Your task to perform on an android device: stop showing notifications on the lock screen Image 0: 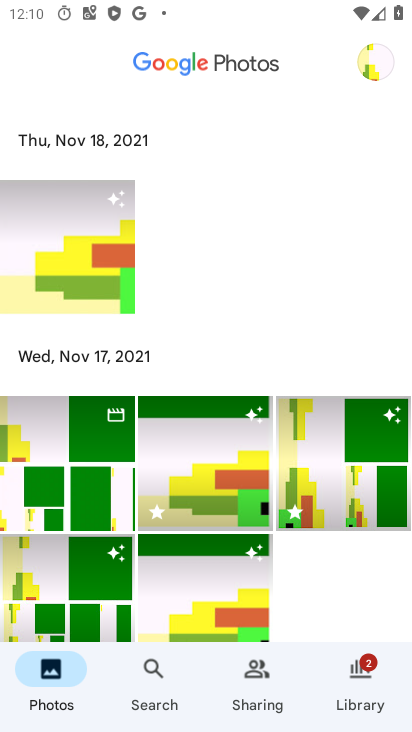
Step 0: press home button
Your task to perform on an android device: stop showing notifications on the lock screen Image 1: 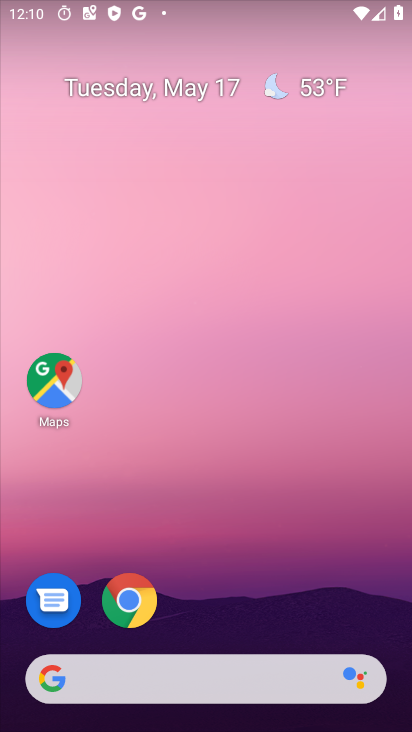
Step 1: drag from (265, 609) to (273, 0)
Your task to perform on an android device: stop showing notifications on the lock screen Image 2: 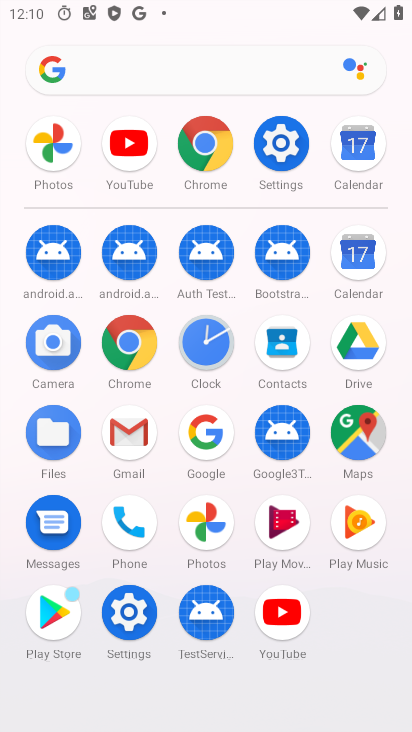
Step 2: click (131, 607)
Your task to perform on an android device: stop showing notifications on the lock screen Image 3: 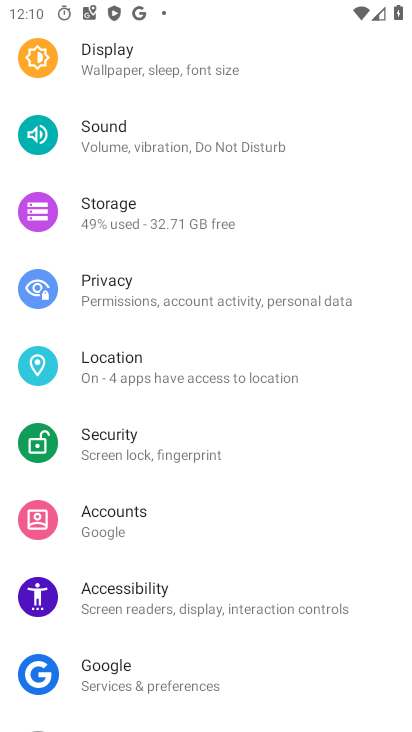
Step 3: drag from (142, 250) to (254, 721)
Your task to perform on an android device: stop showing notifications on the lock screen Image 4: 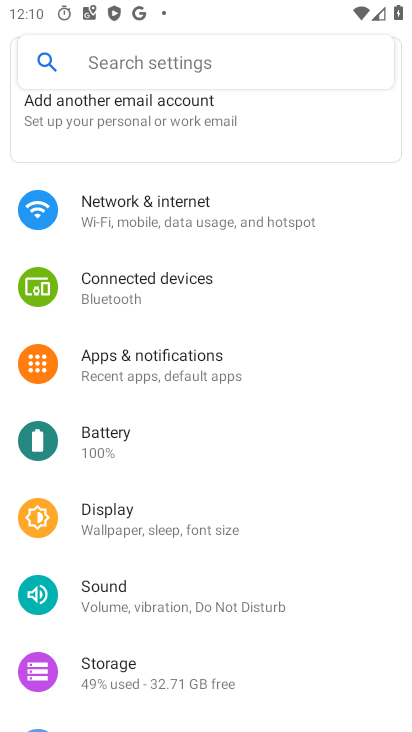
Step 4: click (218, 376)
Your task to perform on an android device: stop showing notifications on the lock screen Image 5: 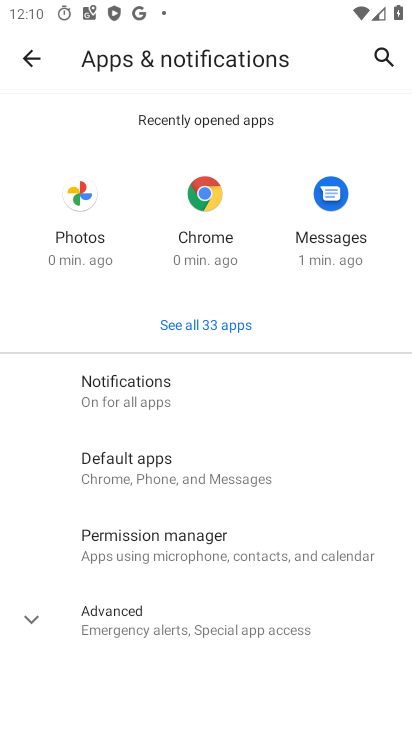
Step 5: click (148, 391)
Your task to perform on an android device: stop showing notifications on the lock screen Image 6: 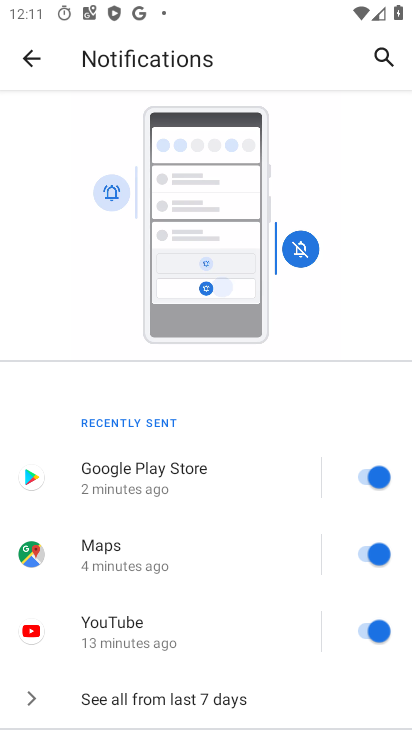
Step 6: drag from (127, 571) to (190, 226)
Your task to perform on an android device: stop showing notifications on the lock screen Image 7: 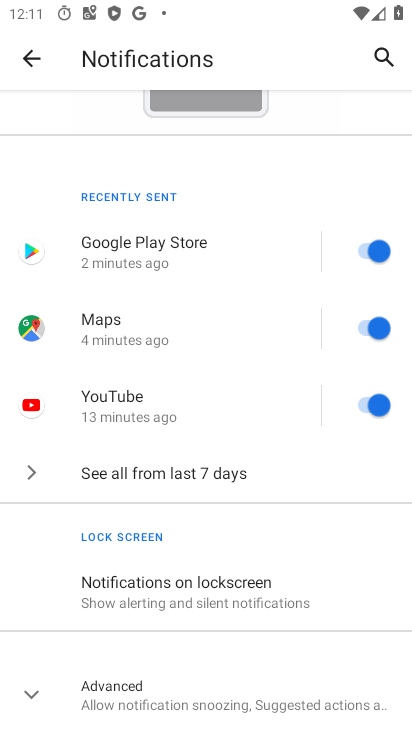
Step 7: click (239, 594)
Your task to perform on an android device: stop showing notifications on the lock screen Image 8: 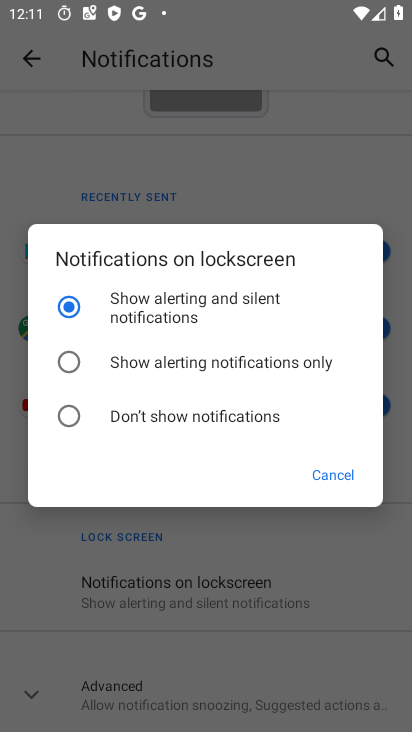
Step 8: click (139, 414)
Your task to perform on an android device: stop showing notifications on the lock screen Image 9: 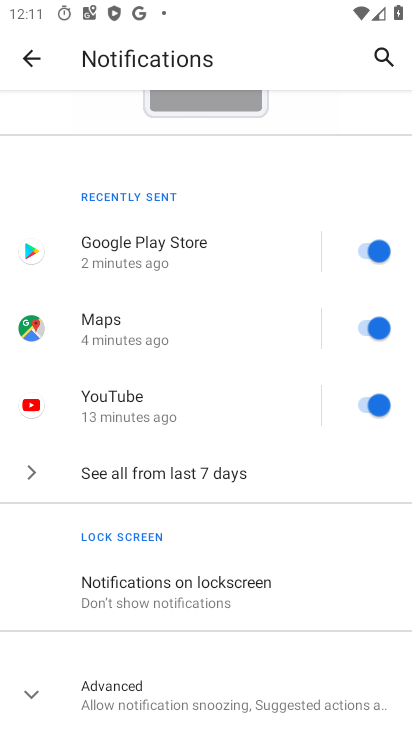
Step 9: task complete